Your task to perform on an android device: Check the weather Image 0: 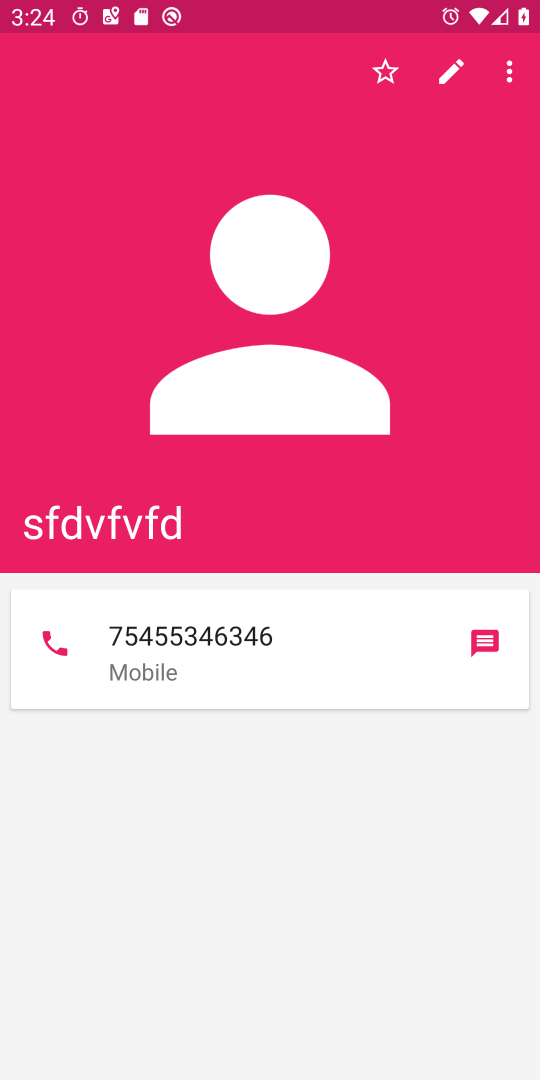
Step 0: press home button
Your task to perform on an android device: Check the weather Image 1: 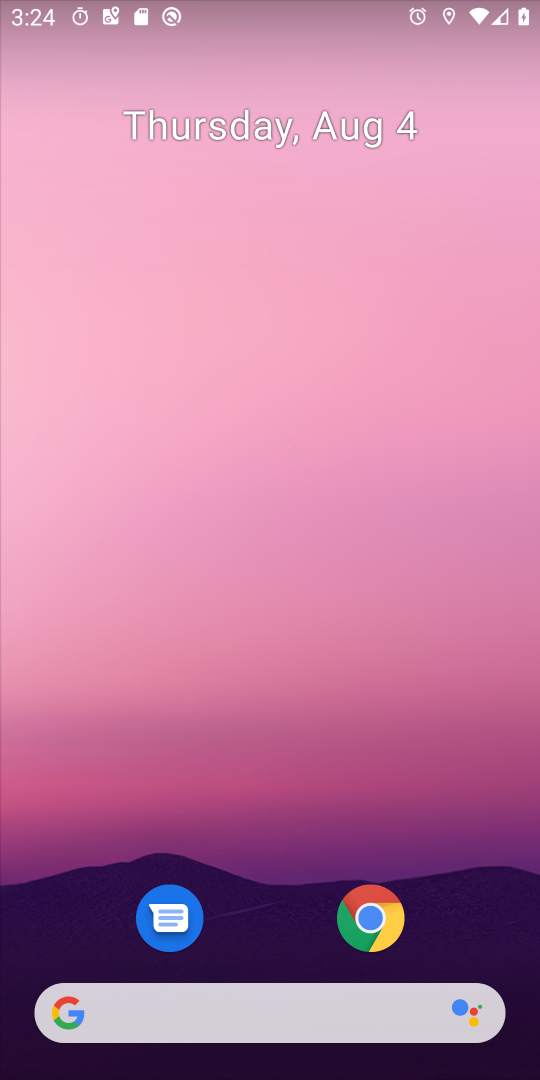
Step 1: drag from (297, 948) to (239, 321)
Your task to perform on an android device: Check the weather Image 2: 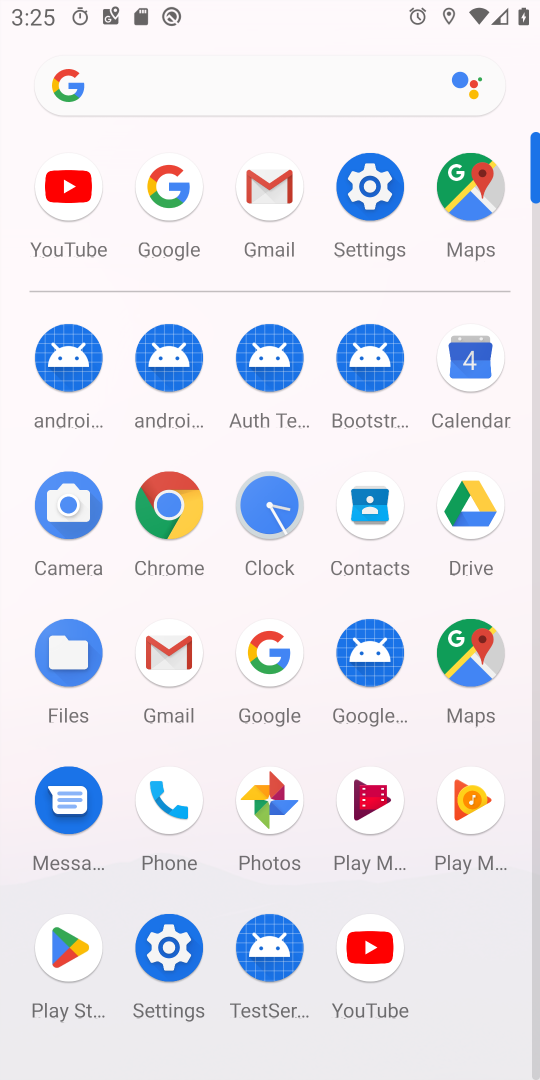
Step 2: click (261, 658)
Your task to perform on an android device: Check the weather Image 3: 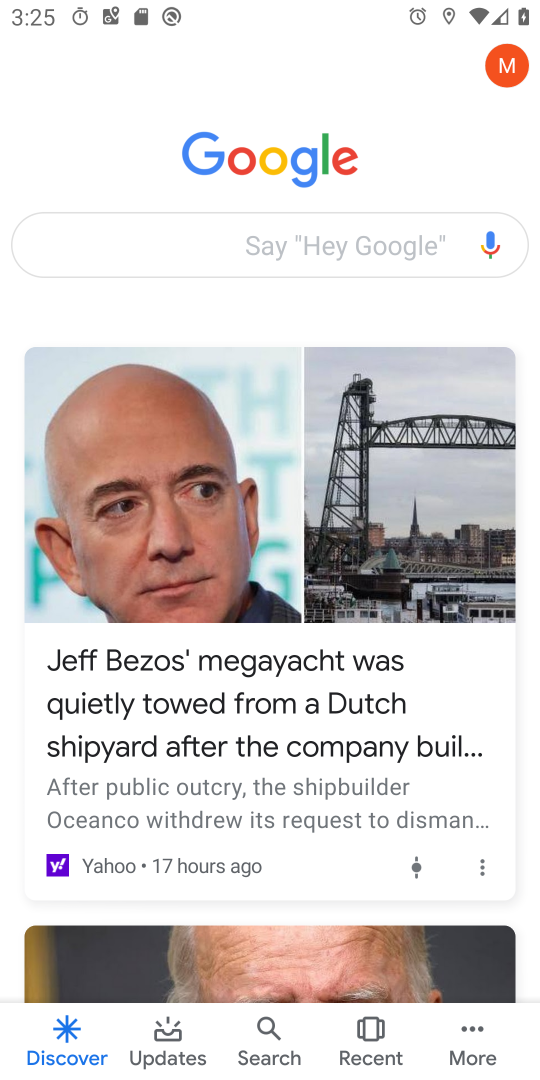
Step 3: click (198, 241)
Your task to perform on an android device: Check the weather Image 4: 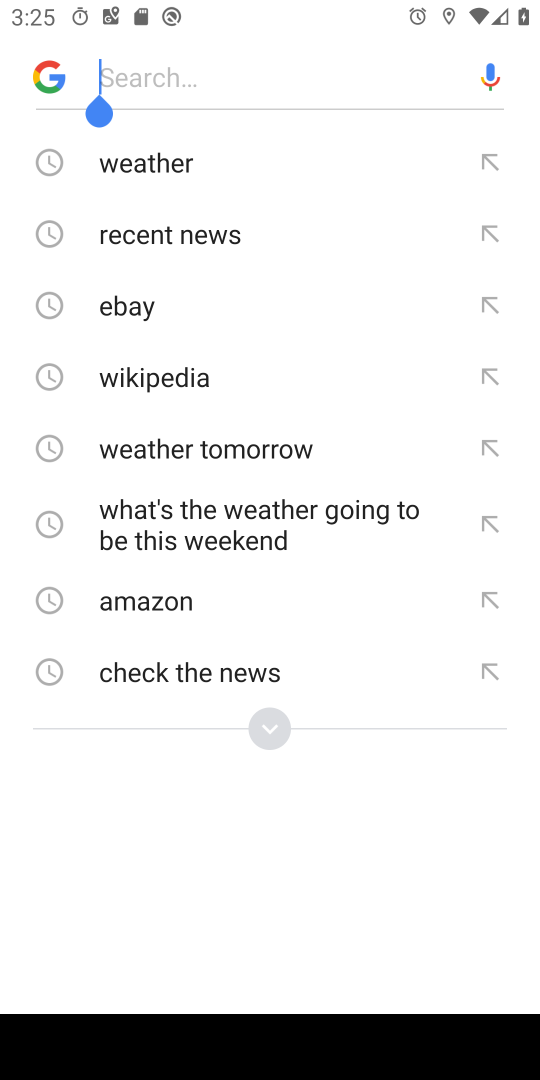
Step 4: click (165, 177)
Your task to perform on an android device: Check the weather Image 5: 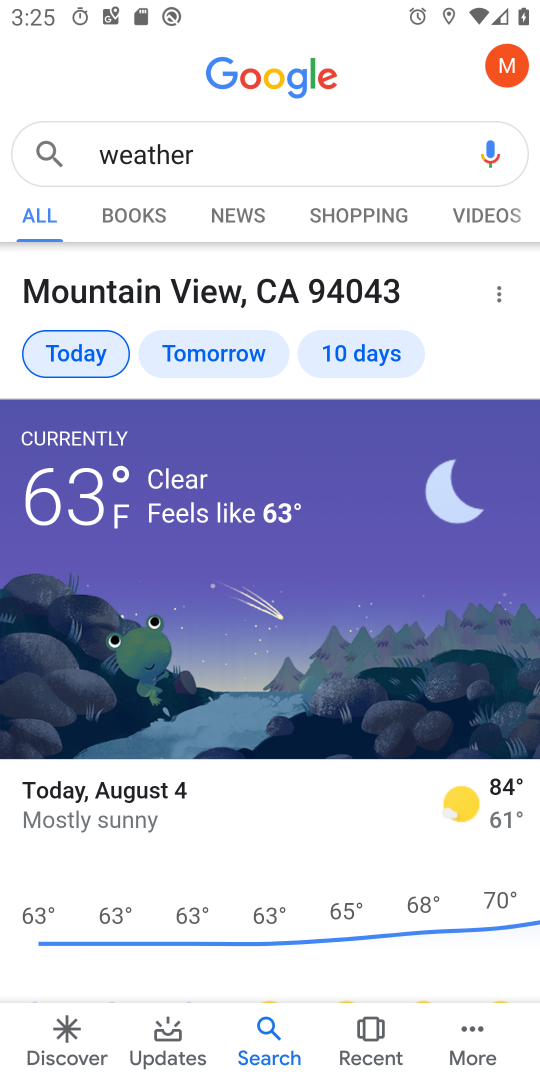
Step 5: task complete